Your task to perform on an android device: Open eBay Image 0: 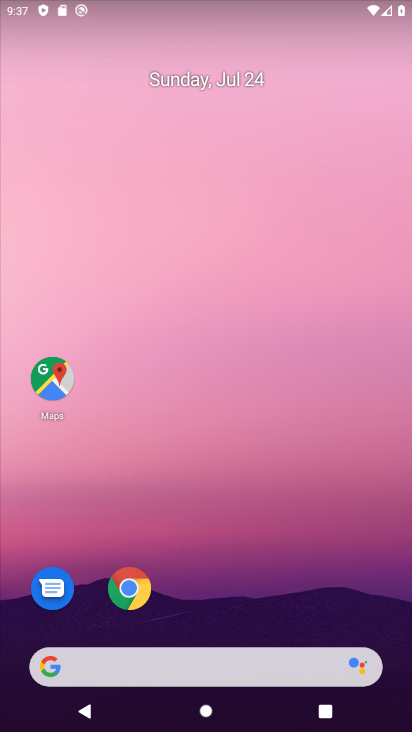
Step 0: drag from (267, 313) to (245, 108)
Your task to perform on an android device: Open eBay Image 1: 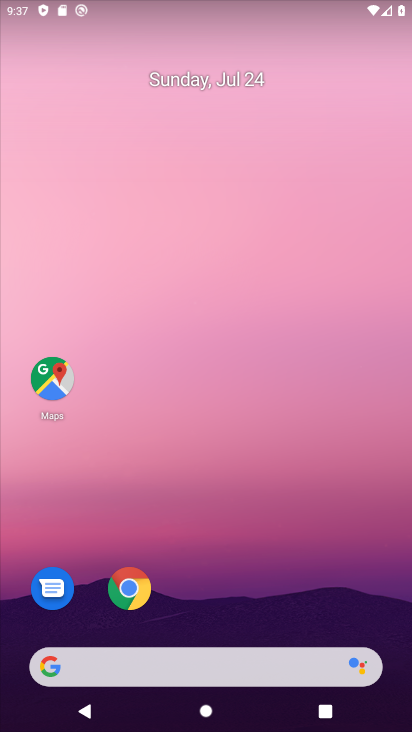
Step 1: drag from (227, 669) to (205, 88)
Your task to perform on an android device: Open eBay Image 2: 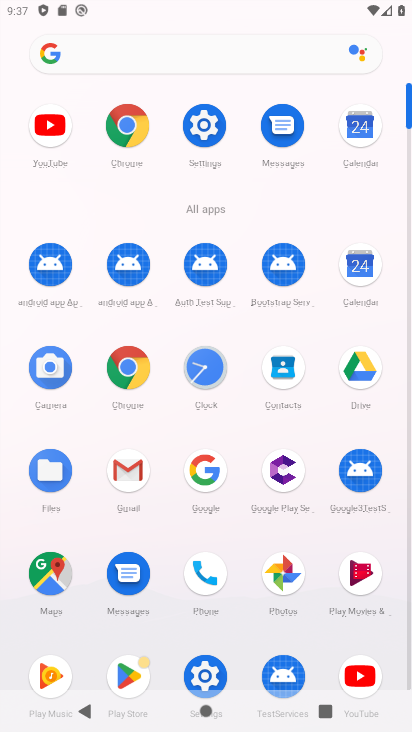
Step 2: click (134, 141)
Your task to perform on an android device: Open eBay Image 3: 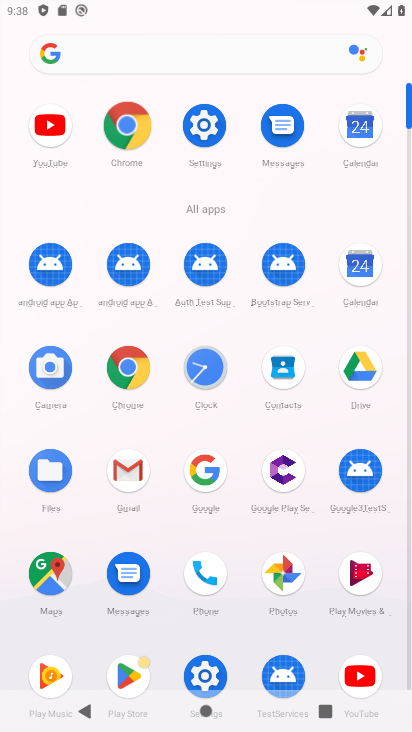
Step 3: click (137, 137)
Your task to perform on an android device: Open eBay Image 4: 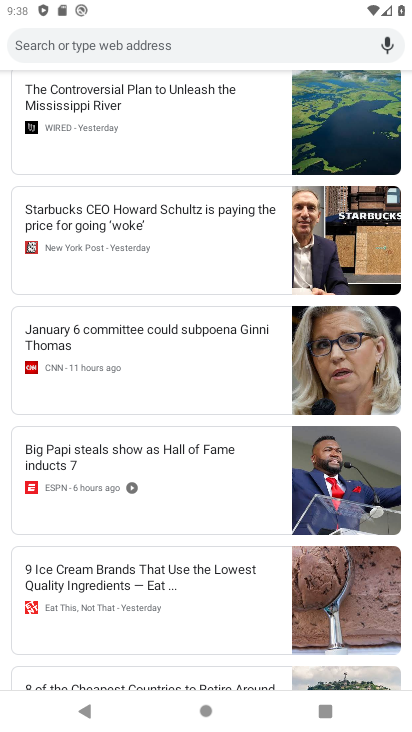
Step 4: drag from (224, 155) to (239, 542)
Your task to perform on an android device: Open eBay Image 5: 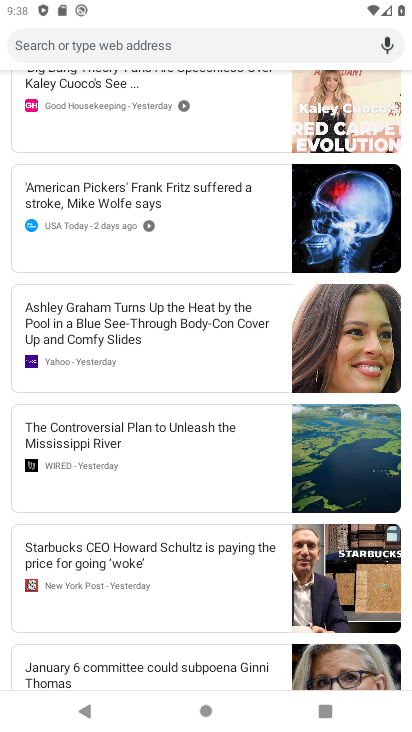
Step 5: drag from (202, 185) to (127, 650)
Your task to perform on an android device: Open eBay Image 6: 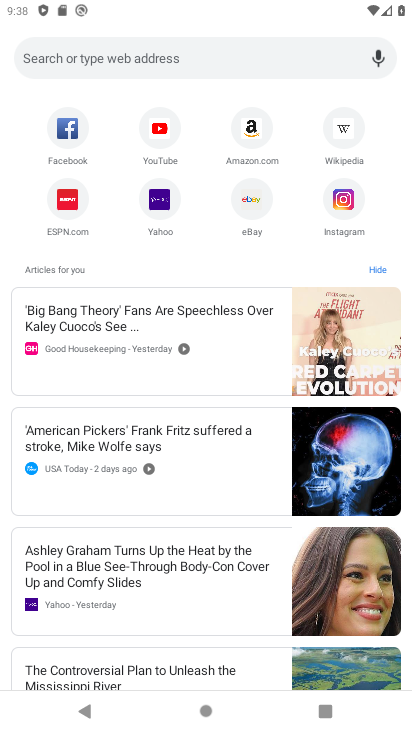
Step 6: drag from (79, 158) to (114, 560)
Your task to perform on an android device: Open eBay Image 7: 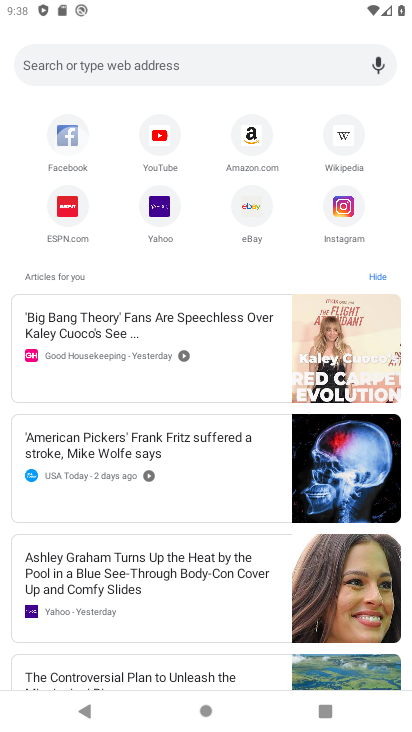
Step 7: drag from (216, 338) to (220, 481)
Your task to perform on an android device: Open eBay Image 8: 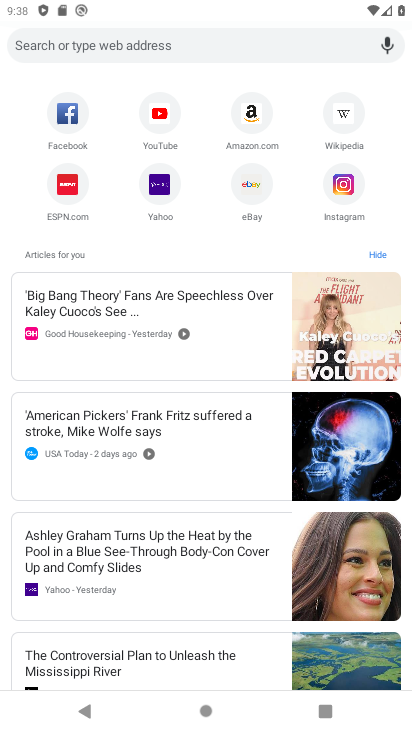
Step 8: drag from (219, 259) to (294, 560)
Your task to perform on an android device: Open eBay Image 9: 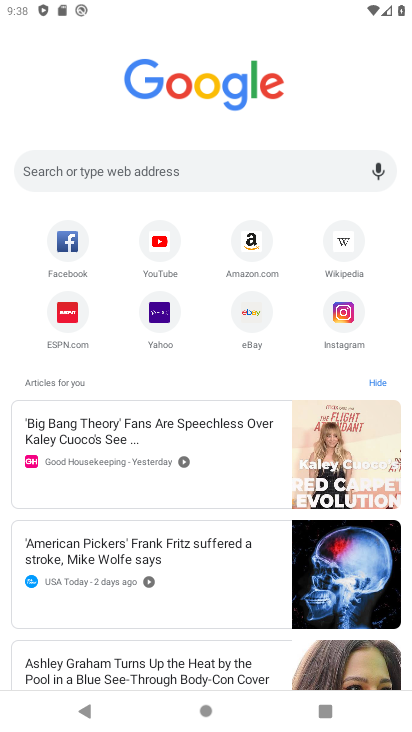
Step 9: drag from (192, 181) to (190, 643)
Your task to perform on an android device: Open eBay Image 10: 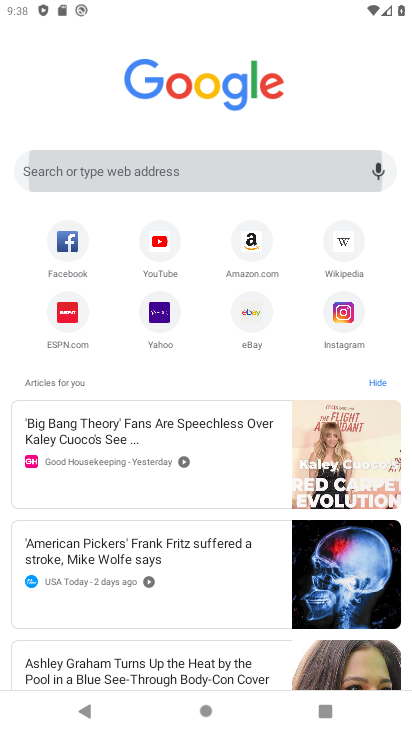
Step 10: drag from (154, 176) to (215, 596)
Your task to perform on an android device: Open eBay Image 11: 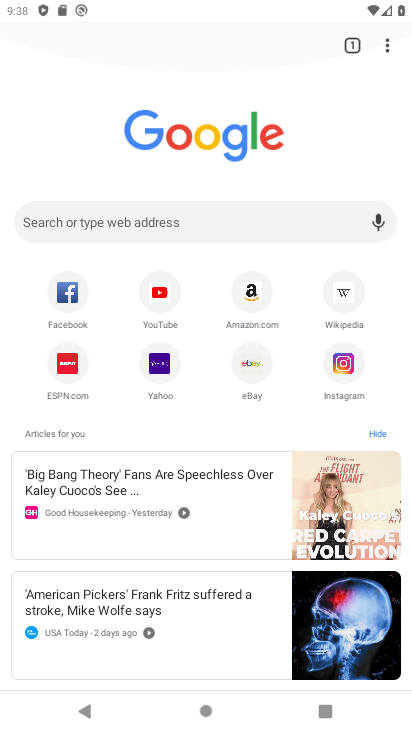
Step 11: drag from (218, 297) to (260, 605)
Your task to perform on an android device: Open eBay Image 12: 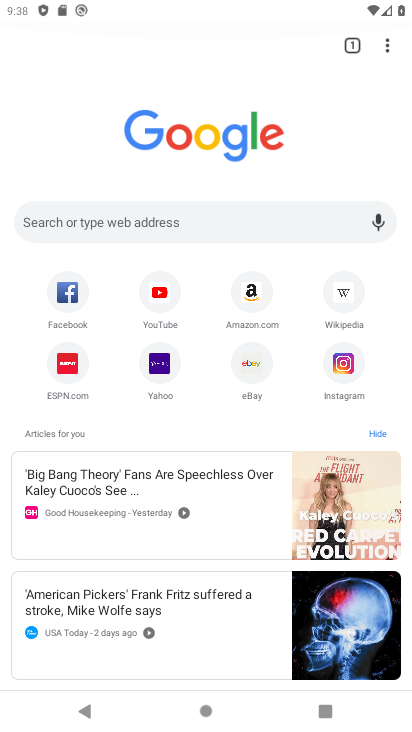
Step 12: drag from (197, 145) to (263, 706)
Your task to perform on an android device: Open eBay Image 13: 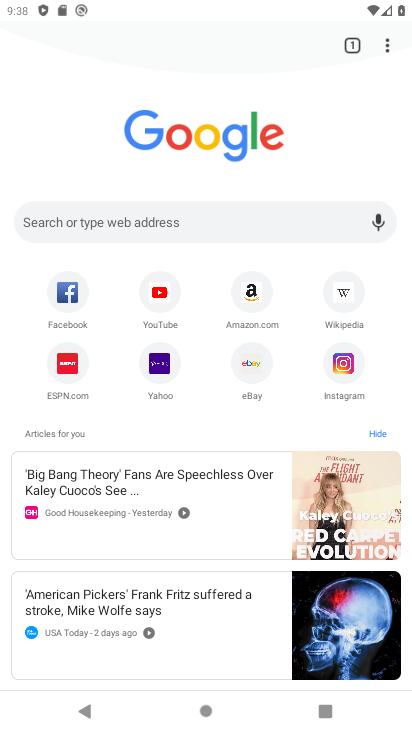
Step 13: click (245, 613)
Your task to perform on an android device: Open eBay Image 14: 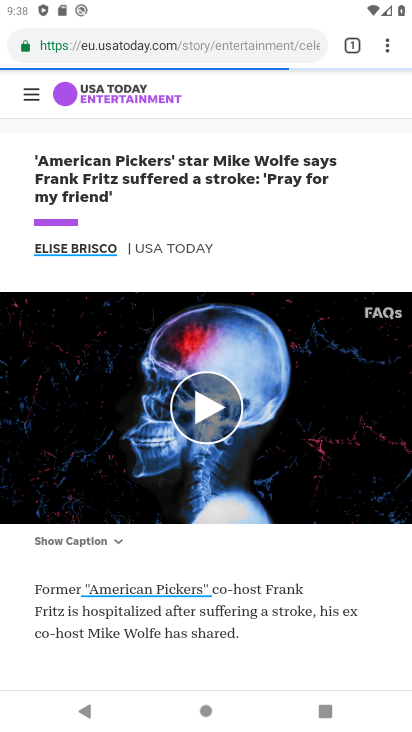
Step 14: click (390, 56)
Your task to perform on an android device: Open eBay Image 15: 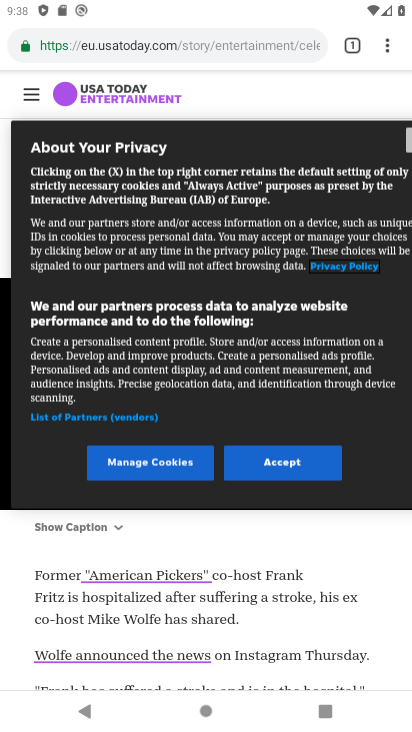
Step 15: drag from (104, 257) to (151, 541)
Your task to perform on an android device: Open eBay Image 16: 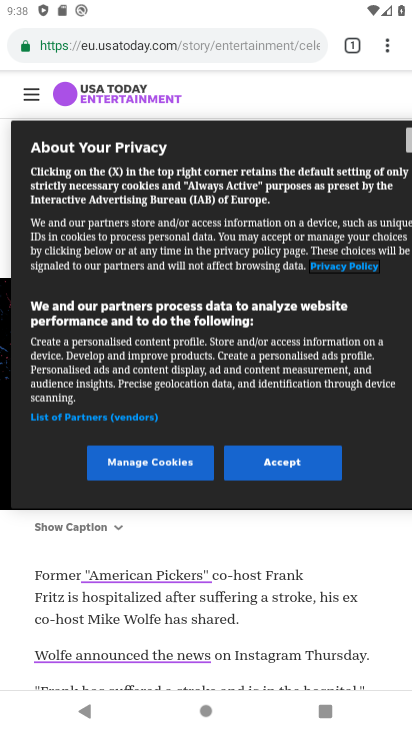
Step 16: drag from (248, 217) to (399, 332)
Your task to perform on an android device: Open eBay Image 17: 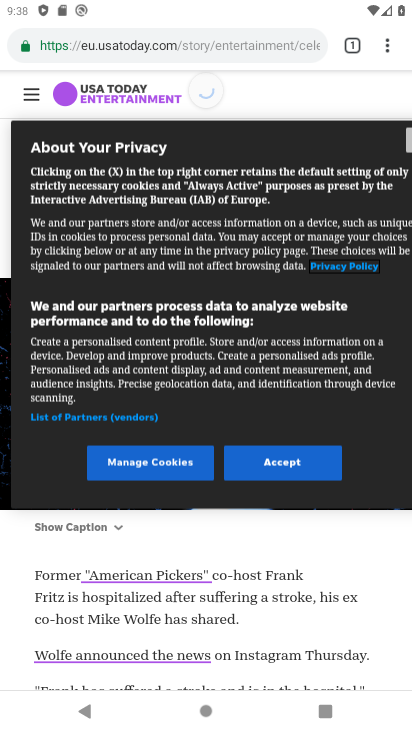
Step 17: press back button
Your task to perform on an android device: Open eBay Image 18: 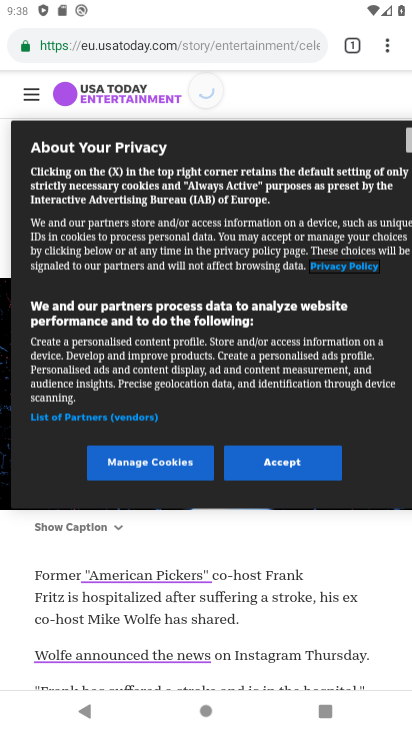
Step 18: click (382, 271)
Your task to perform on an android device: Open eBay Image 19: 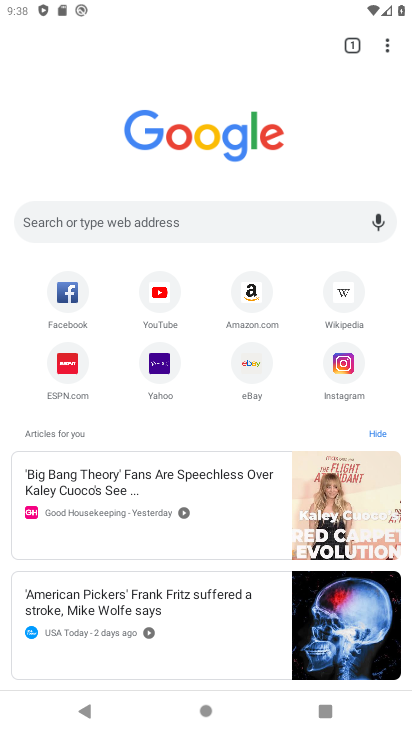
Step 19: drag from (245, 362) to (276, 408)
Your task to perform on an android device: Open eBay Image 20: 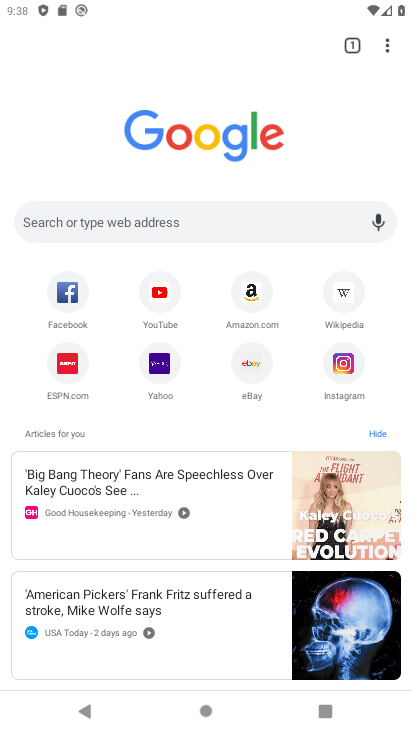
Step 20: click (278, 401)
Your task to perform on an android device: Open eBay Image 21: 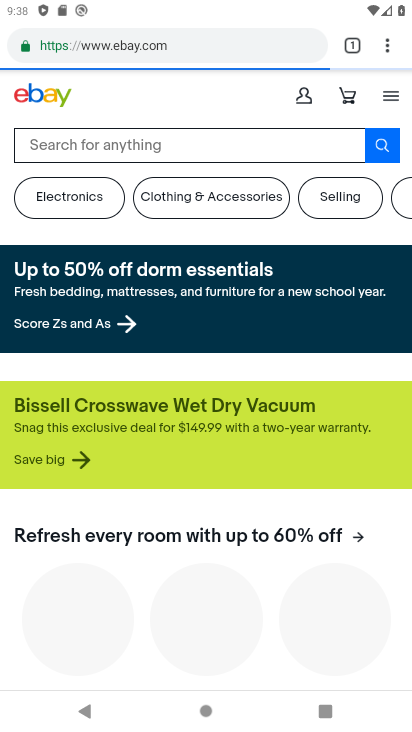
Step 21: task complete